Your task to perform on an android device: Open Google Chrome Image 0: 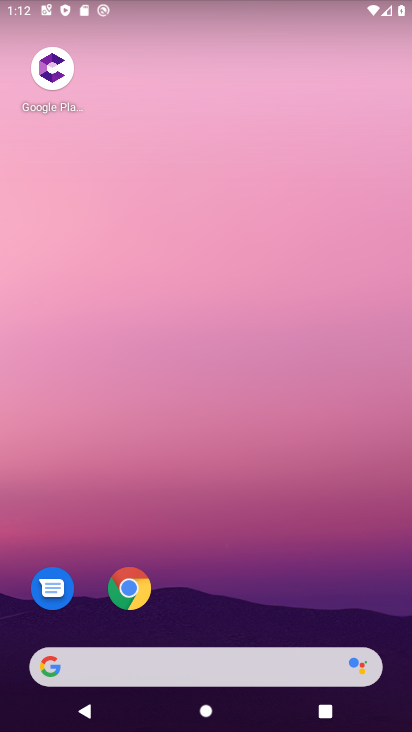
Step 0: click (122, 589)
Your task to perform on an android device: Open Google Chrome Image 1: 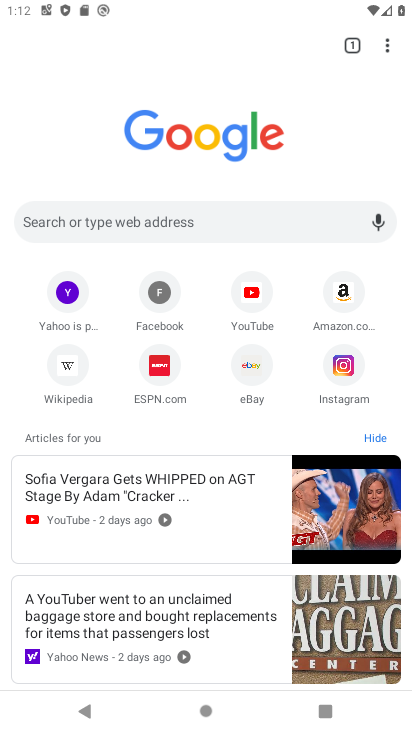
Step 1: task complete